Your task to perform on an android device: Go to network settings Image 0: 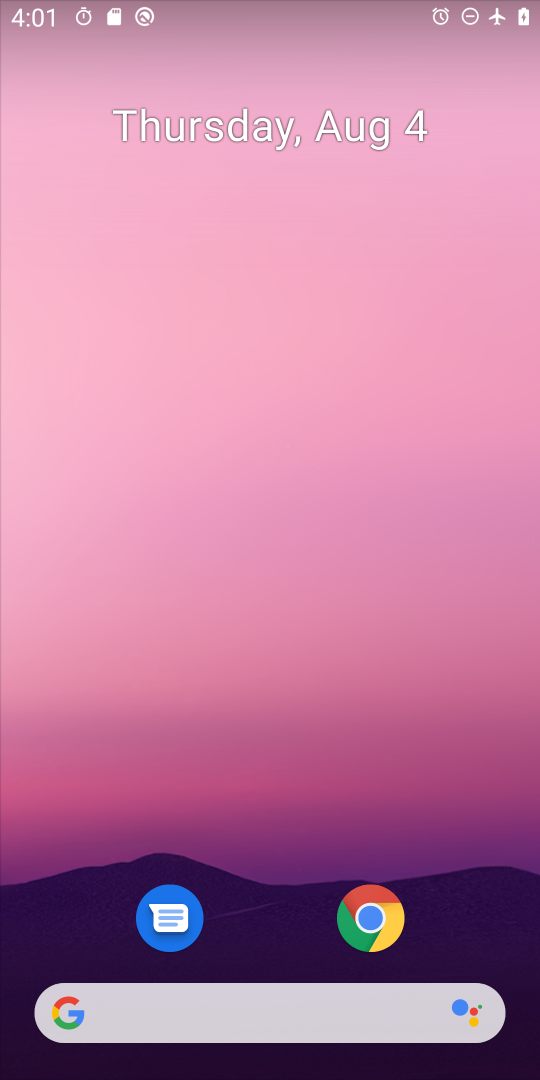
Step 0: drag from (265, 830) to (243, 325)
Your task to perform on an android device: Go to network settings Image 1: 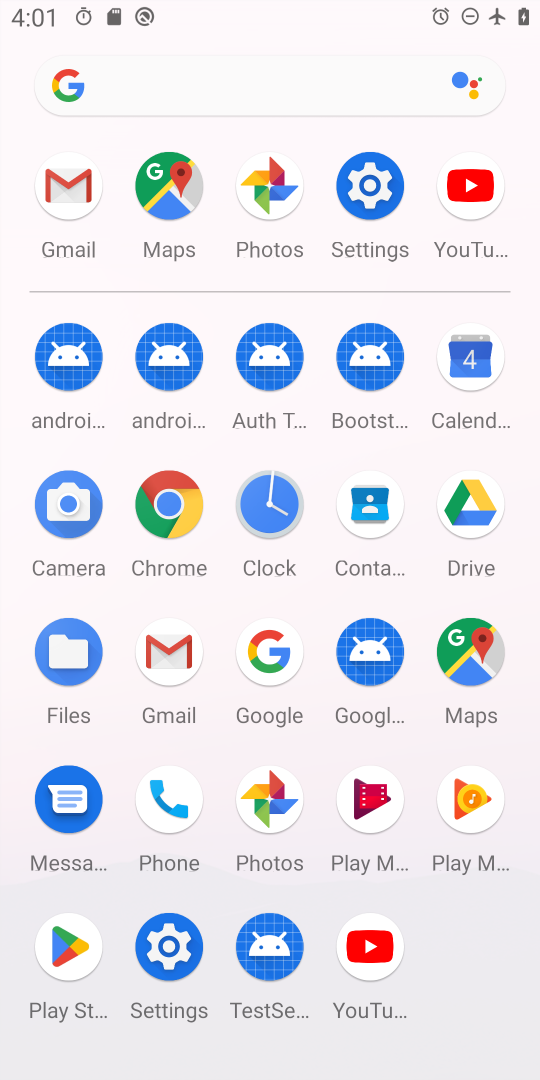
Step 1: click (362, 185)
Your task to perform on an android device: Go to network settings Image 2: 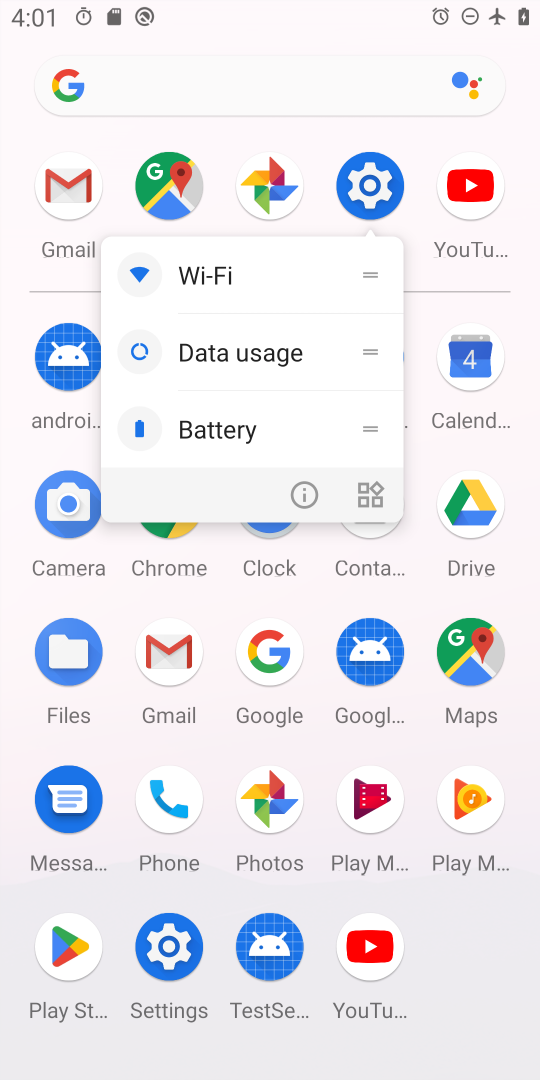
Step 2: click (362, 185)
Your task to perform on an android device: Go to network settings Image 3: 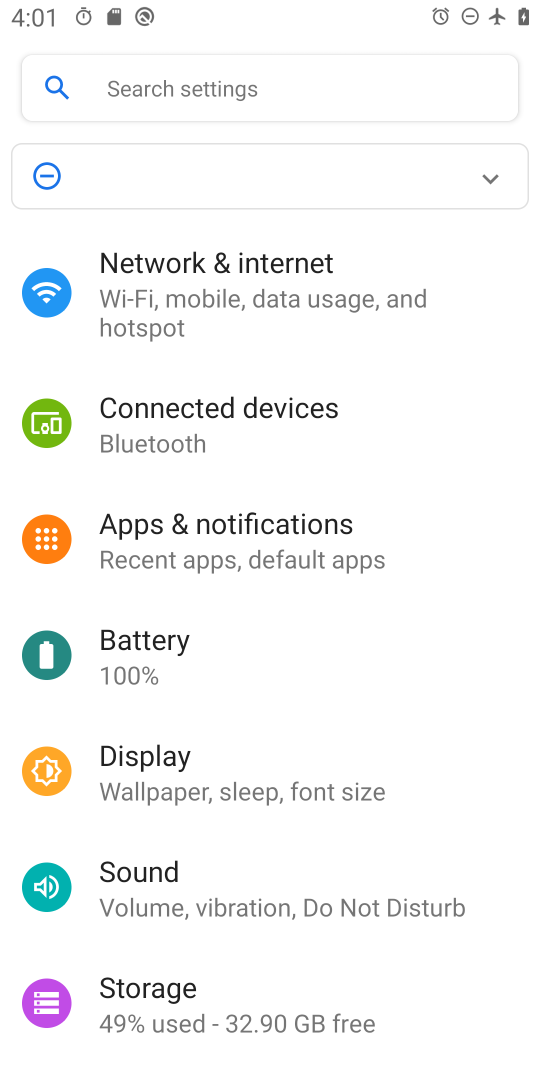
Step 3: click (305, 288)
Your task to perform on an android device: Go to network settings Image 4: 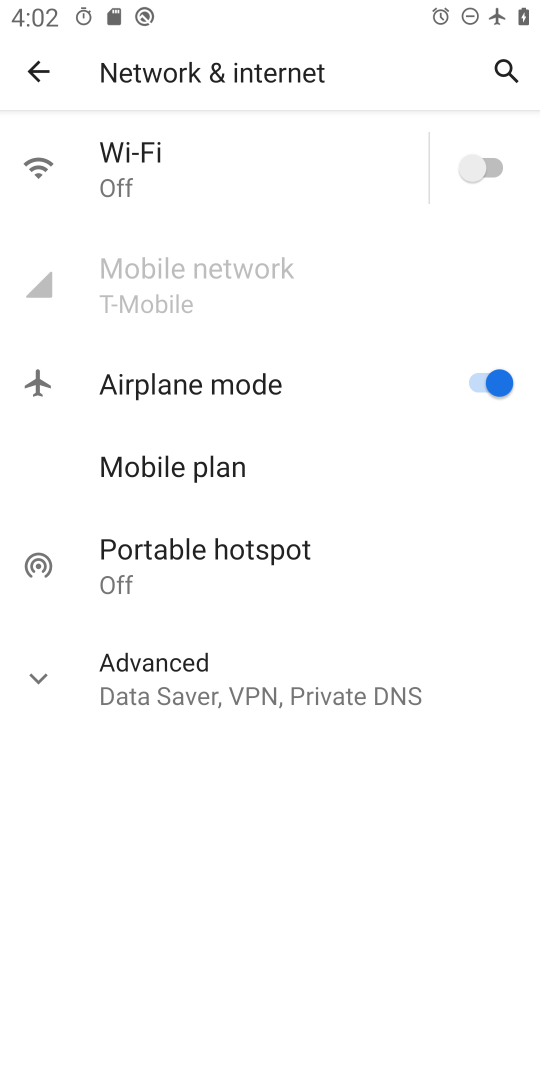
Step 4: task complete